Your task to perform on an android device: Show me productivity apps on the Play Store Image 0: 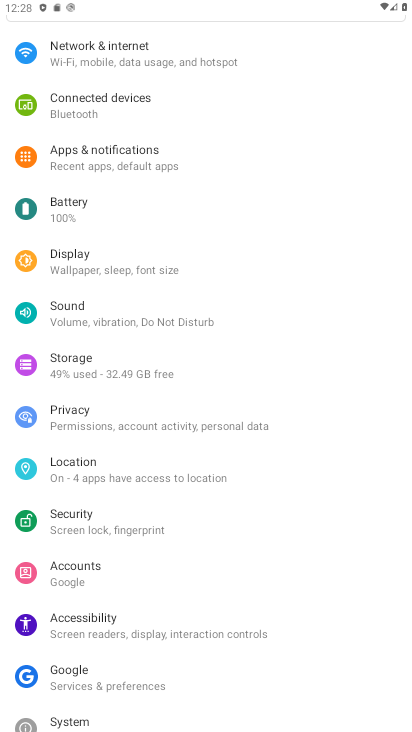
Step 0: press home button
Your task to perform on an android device: Show me productivity apps on the Play Store Image 1: 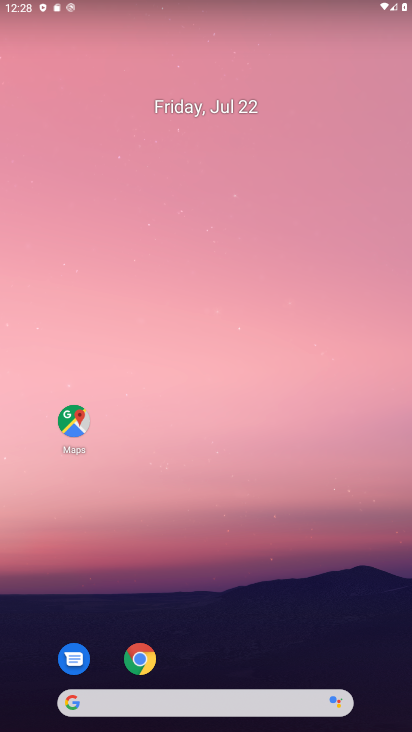
Step 1: drag from (266, 638) to (206, 0)
Your task to perform on an android device: Show me productivity apps on the Play Store Image 2: 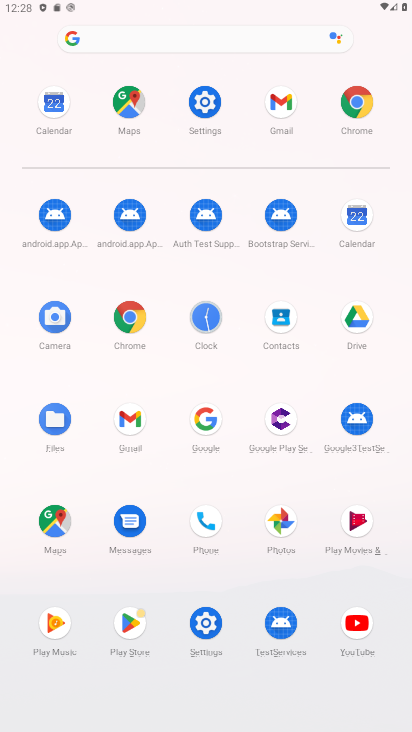
Step 2: click (135, 640)
Your task to perform on an android device: Show me productivity apps on the Play Store Image 3: 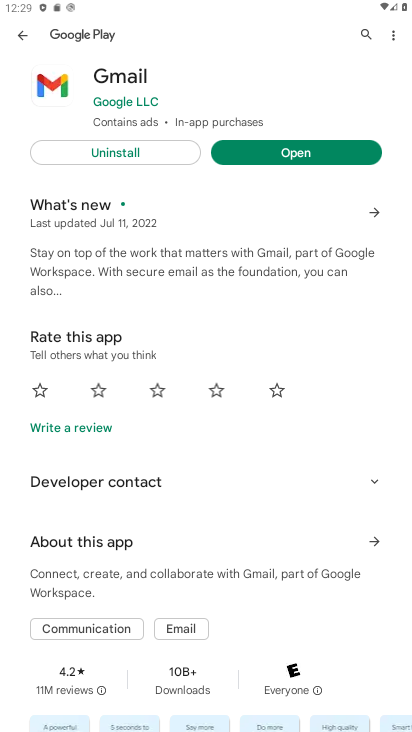
Step 3: click (291, 154)
Your task to perform on an android device: Show me productivity apps on the Play Store Image 4: 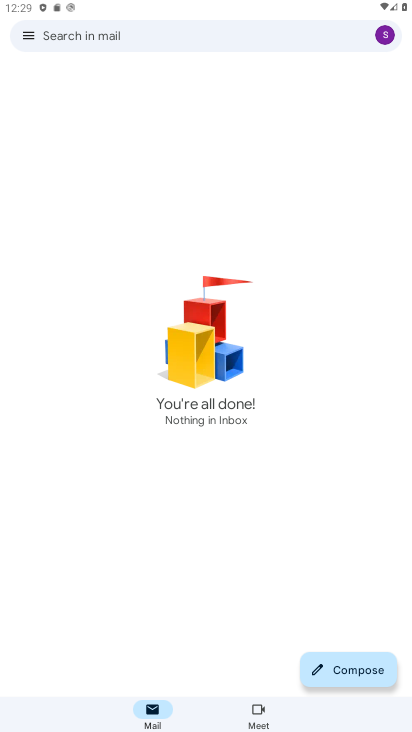
Step 4: task complete